Your task to perform on an android device: Search for "corsair k70" on target, select the first entry, and add it to the cart. Image 0: 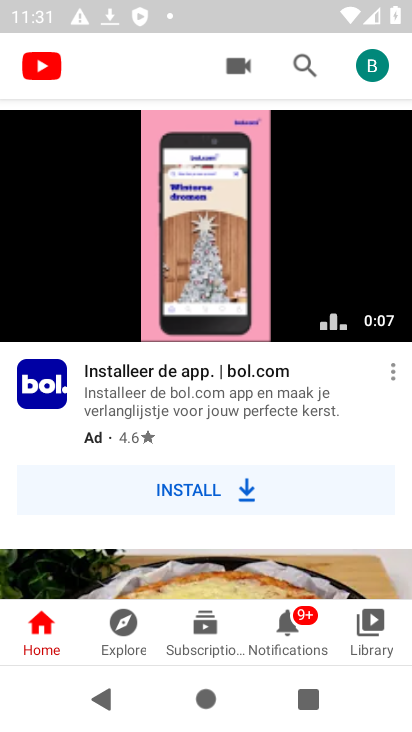
Step 0: press home button
Your task to perform on an android device: Search for "corsair k70" on target, select the first entry, and add it to the cart. Image 1: 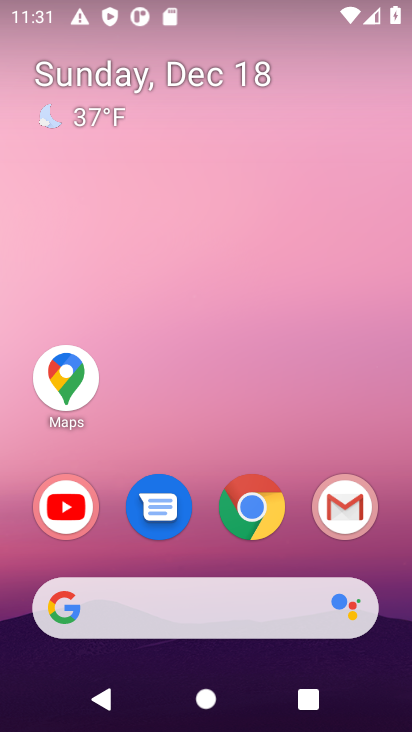
Step 1: click (255, 511)
Your task to perform on an android device: Search for "corsair k70" on target, select the first entry, and add it to the cart. Image 2: 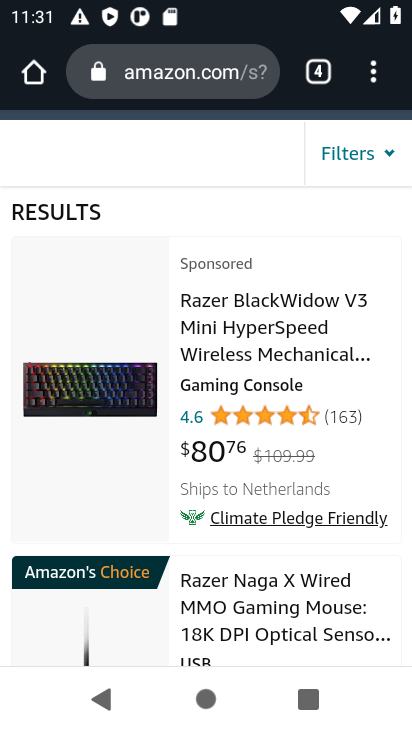
Step 2: click (157, 76)
Your task to perform on an android device: Search for "corsair k70" on target, select the first entry, and add it to the cart. Image 3: 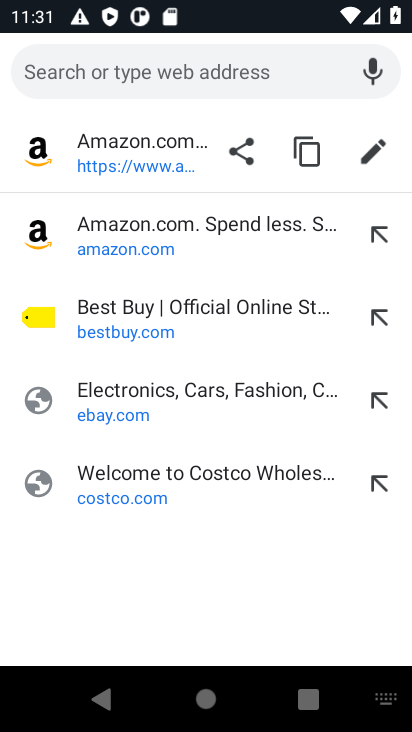
Step 3: type "target.com"
Your task to perform on an android device: Search for "corsair k70" on target, select the first entry, and add it to the cart. Image 4: 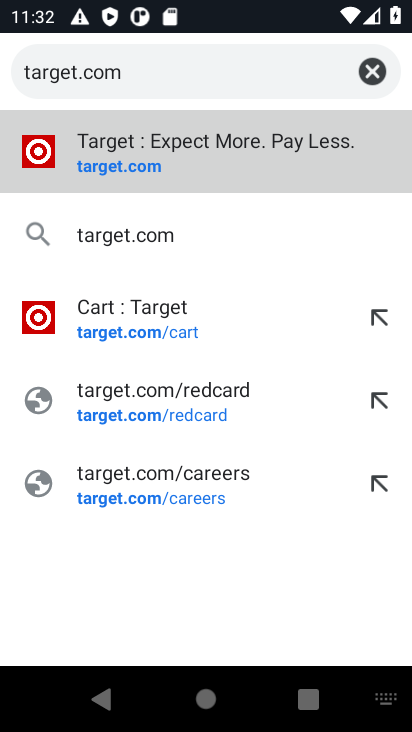
Step 4: click (98, 179)
Your task to perform on an android device: Search for "corsair k70" on target, select the first entry, and add it to the cart. Image 5: 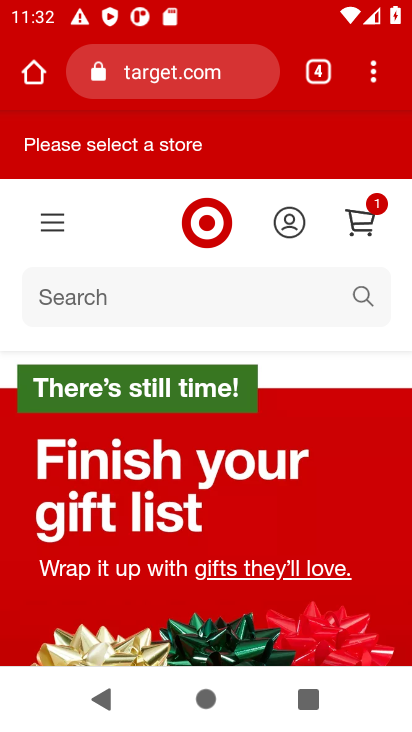
Step 5: click (57, 299)
Your task to perform on an android device: Search for "corsair k70" on target, select the first entry, and add it to the cart. Image 6: 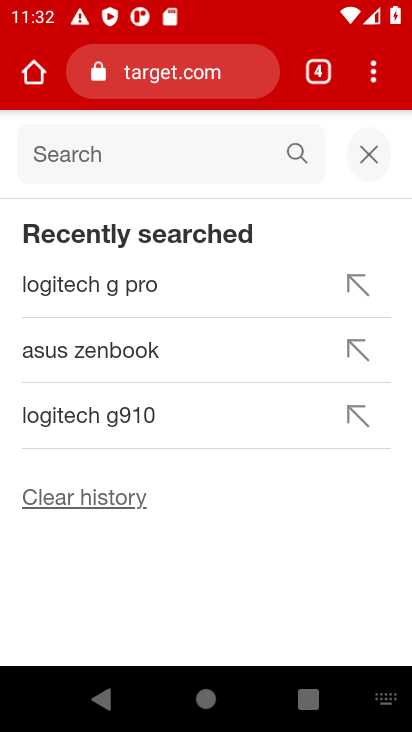
Step 6: type "corsair k70"
Your task to perform on an android device: Search for "corsair k70" on target, select the first entry, and add it to the cart. Image 7: 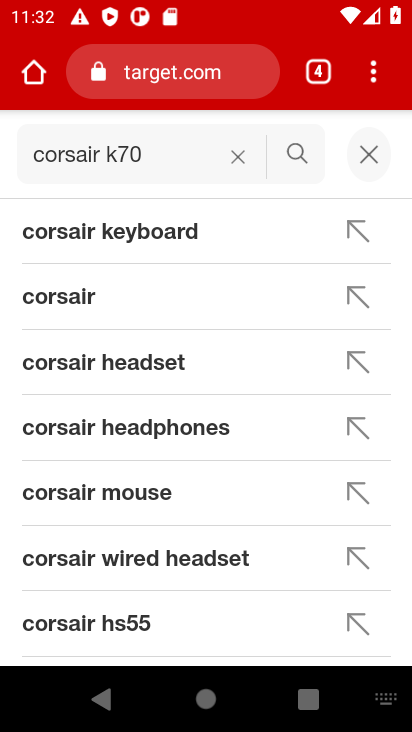
Step 7: click (303, 151)
Your task to perform on an android device: Search for "corsair k70" on target, select the first entry, and add it to the cart. Image 8: 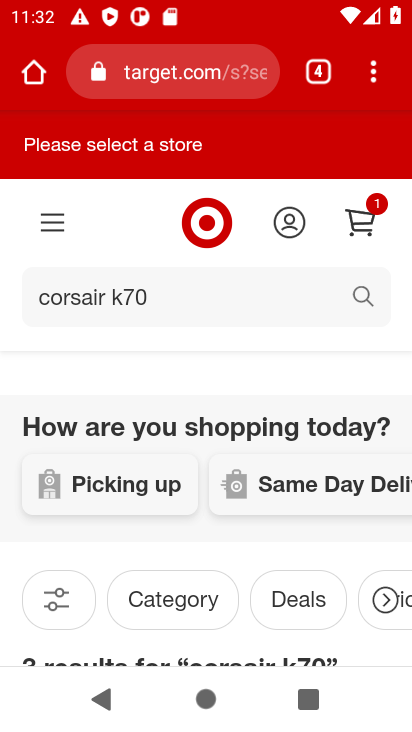
Step 8: task complete